Your task to perform on an android device: Do I have any events today? Image 0: 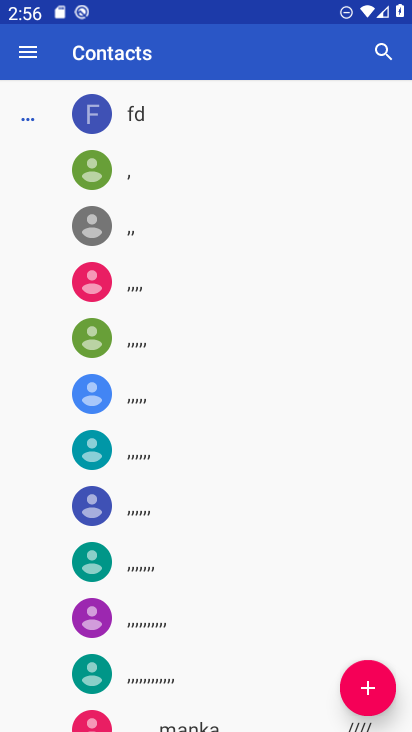
Step 0: press home button
Your task to perform on an android device: Do I have any events today? Image 1: 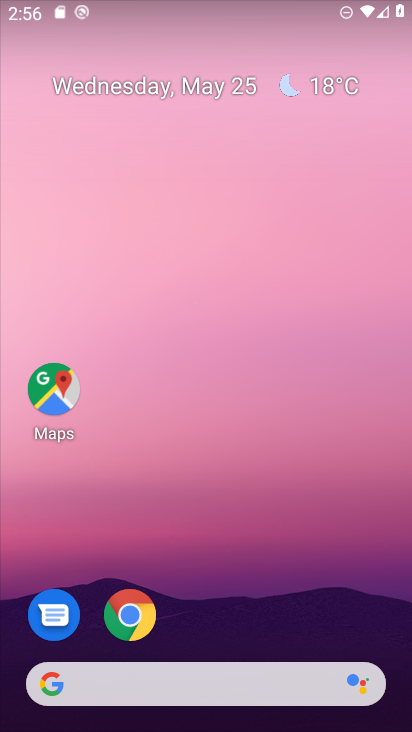
Step 1: drag from (253, 567) to (281, 37)
Your task to perform on an android device: Do I have any events today? Image 2: 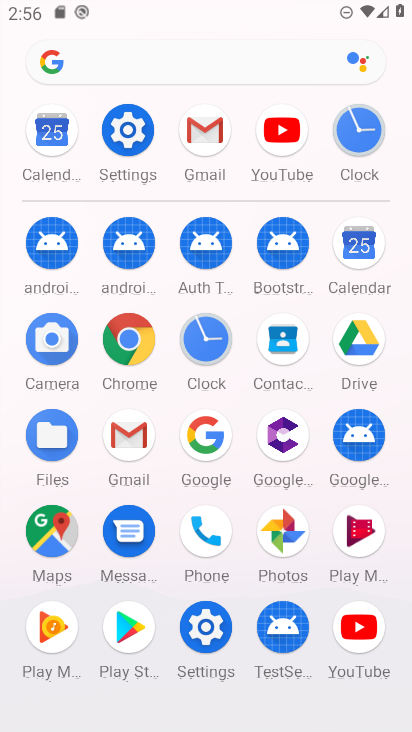
Step 2: click (48, 121)
Your task to perform on an android device: Do I have any events today? Image 3: 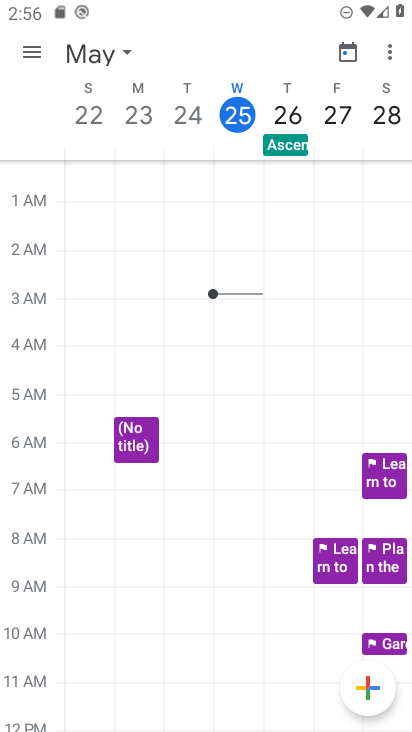
Step 3: click (235, 115)
Your task to perform on an android device: Do I have any events today? Image 4: 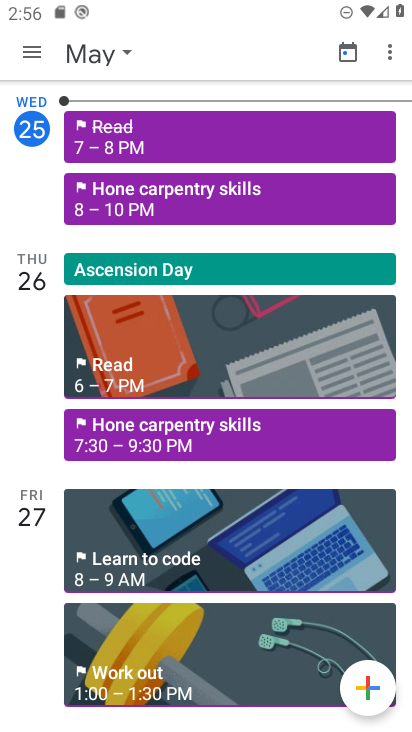
Step 4: task complete